Your task to perform on an android device: delete location history Image 0: 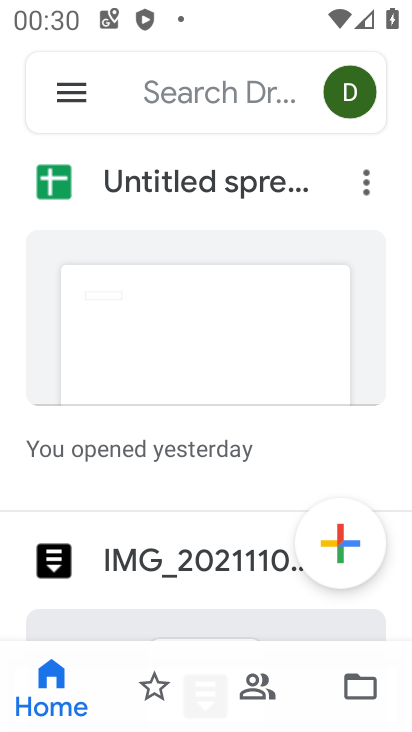
Step 0: press home button
Your task to perform on an android device: delete location history Image 1: 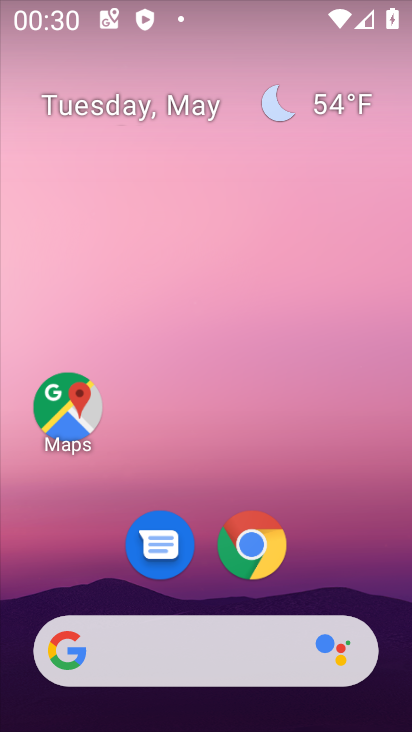
Step 1: click (51, 414)
Your task to perform on an android device: delete location history Image 2: 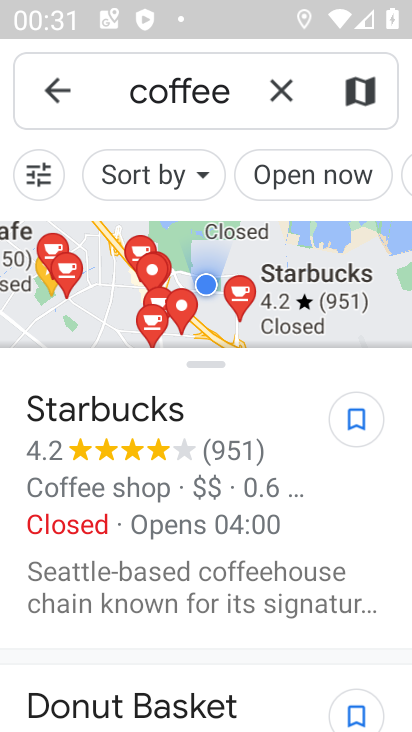
Step 2: click (59, 87)
Your task to perform on an android device: delete location history Image 3: 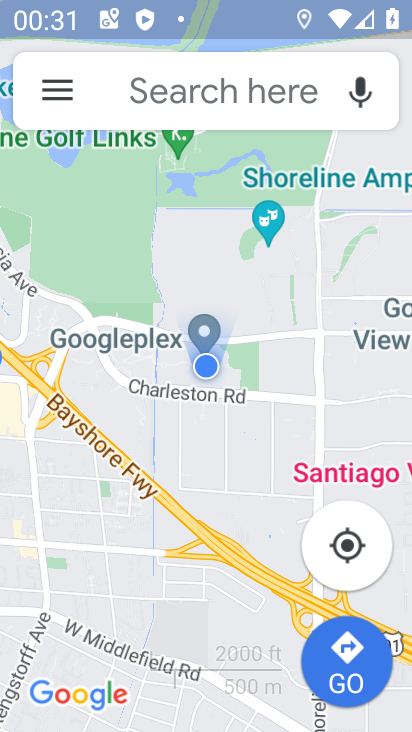
Step 3: click (57, 87)
Your task to perform on an android device: delete location history Image 4: 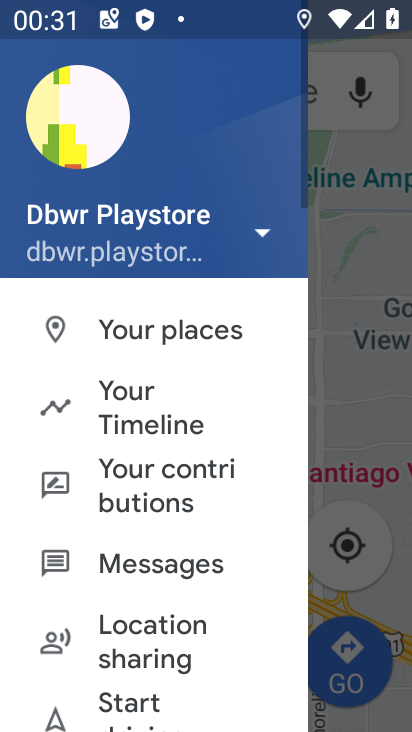
Step 4: click (103, 413)
Your task to perform on an android device: delete location history Image 5: 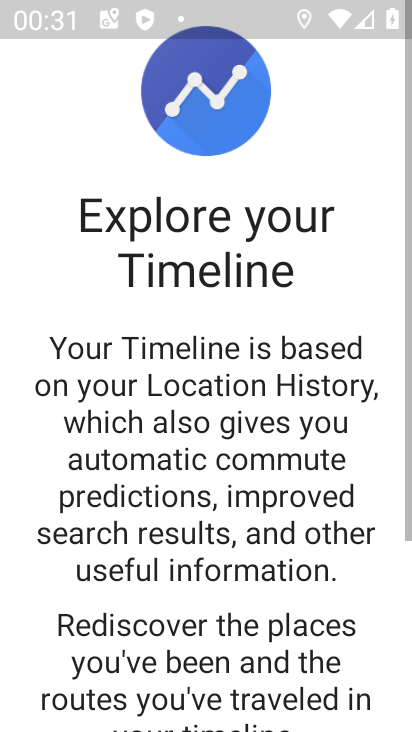
Step 5: drag from (292, 652) to (241, 129)
Your task to perform on an android device: delete location history Image 6: 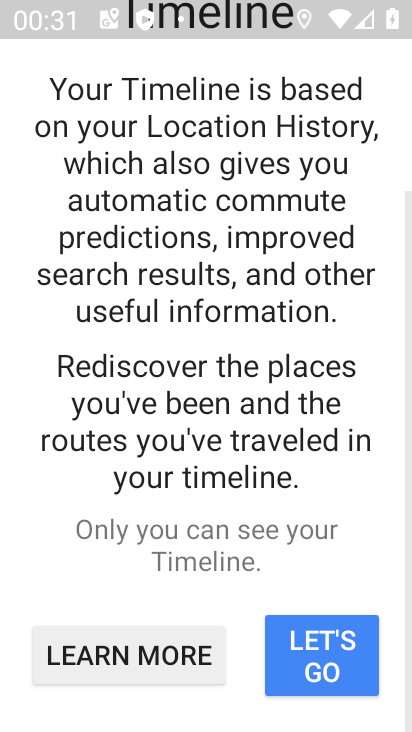
Step 6: click (288, 635)
Your task to perform on an android device: delete location history Image 7: 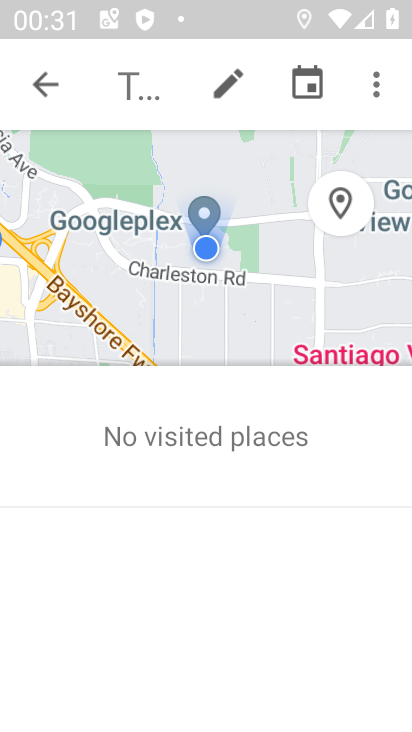
Step 7: click (378, 72)
Your task to perform on an android device: delete location history Image 8: 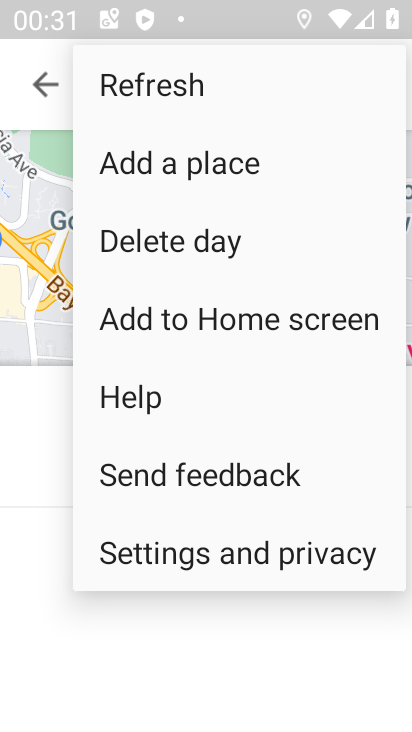
Step 8: click (229, 231)
Your task to perform on an android device: delete location history Image 9: 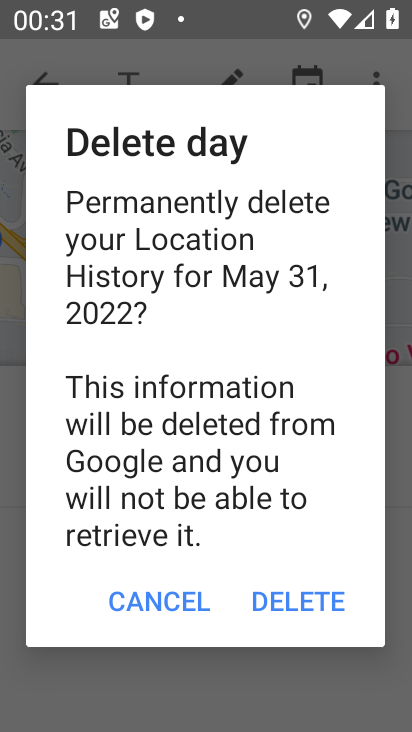
Step 9: click (288, 594)
Your task to perform on an android device: delete location history Image 10: 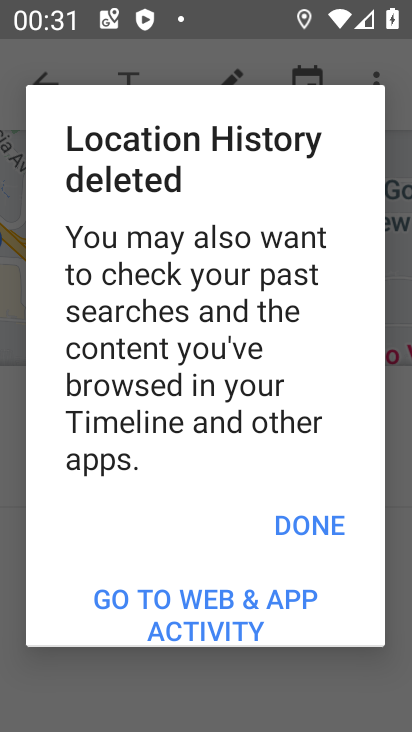
Step 10: click (297, 522)
Your task to perform on an android device: delete location history Image 11: 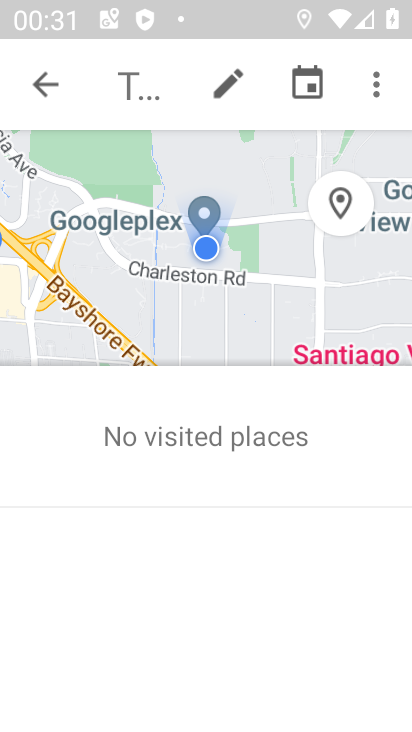
Step 11: task complete